Your task to perform on an android device: turn pop-ups off in chrome Image 0: 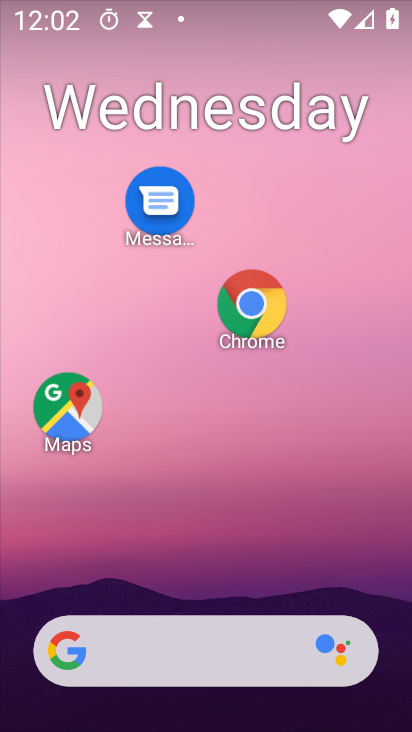
Step 0: drag from (278, 382) to (301, 197)
Your task to perform on an android device: turn pop-ups off in chrome Image 1: 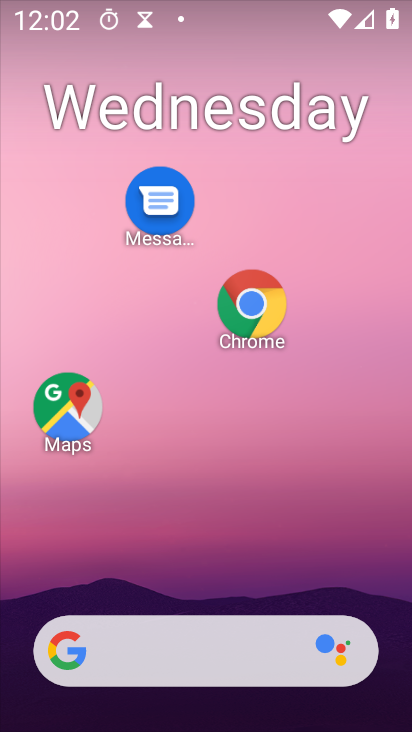
Step 1: click (288, 512)
Your task to perform on an android device: turn pop-ups off in chrome Image 2: 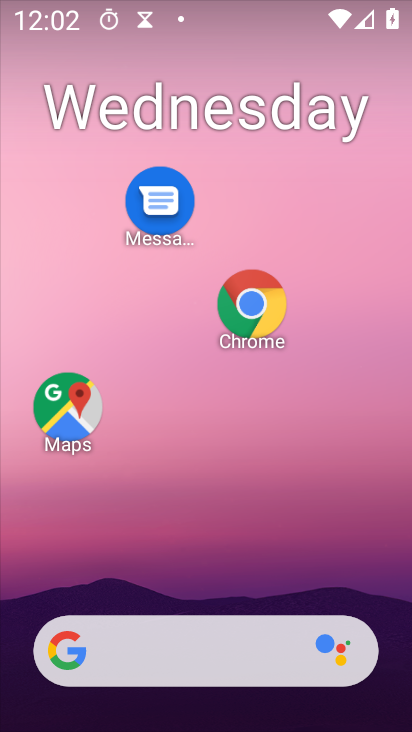
Step 2: drag from (276, 489) to (276, 272)
Your task to perform on an android device: turn pop-ups off in chrome Image 3: 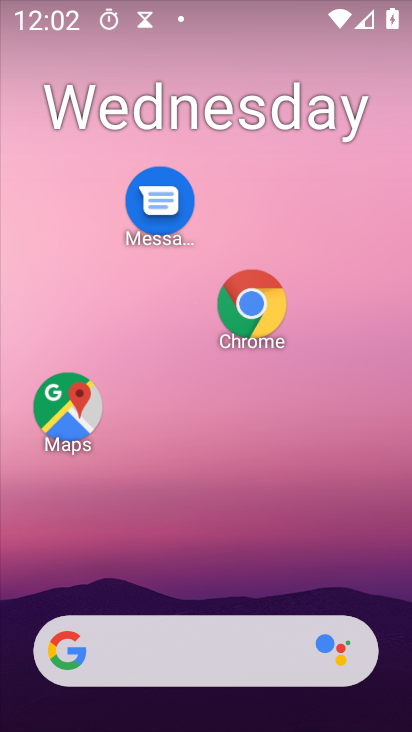
Step 3: drag from (267, 405) to (275, 139)
Your task to perform on an android device: turn pop-ups off in chrome Image 4: 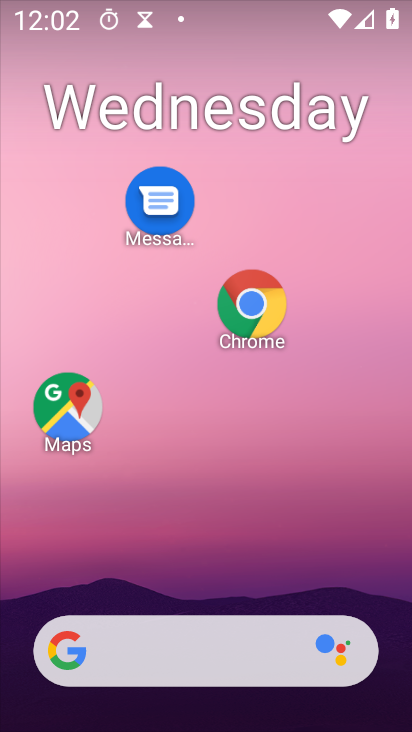
Step 4: drag from (226, 549) to (301, 176)
Your task to perform on an android device: turn pop-ups off in chrome Image 5: 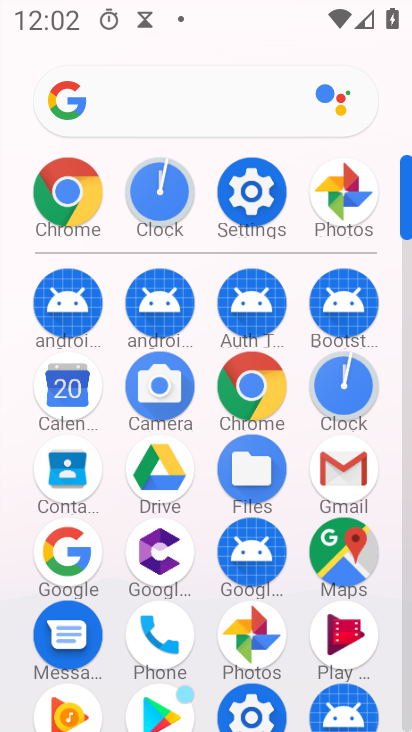
Step 5: click (252, 383)
Your task to perform on an android device: turn pop-ups off in chrome Image 6: 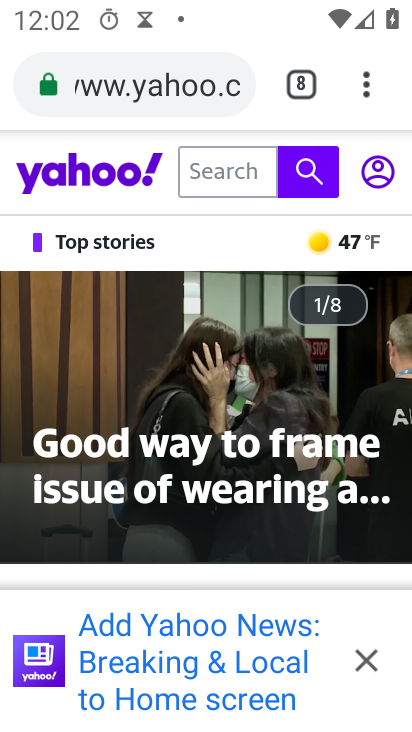
Step 6: click (364, 89)
Your task to perform on an android device: turn pop-ups off in chrome Image 7: 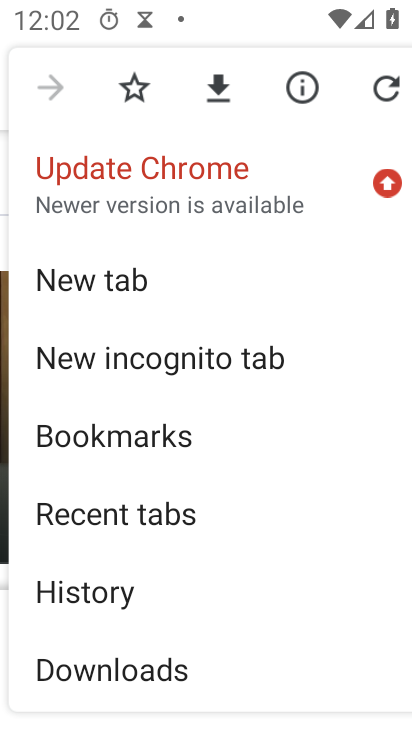
Step 7: drag from (232, 580) to (316, 177)
Your task to perform on an android device: turn pop-ups off in chrome Image 8: 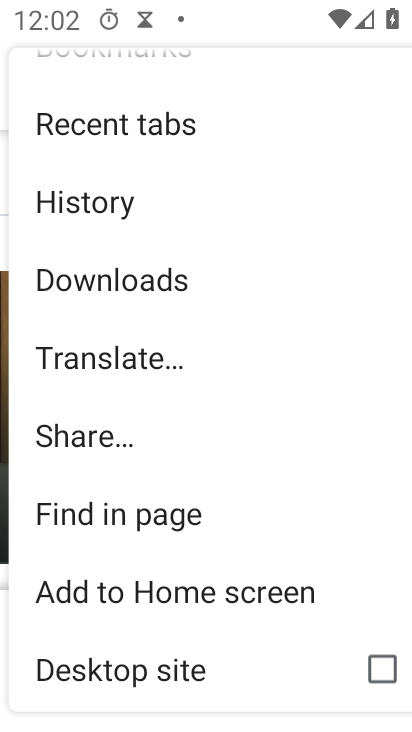
Step 8: drag from (223, 598) to (294, 138)
Your task to perform on an android device: turn pop-ups off in chrome Image 9: 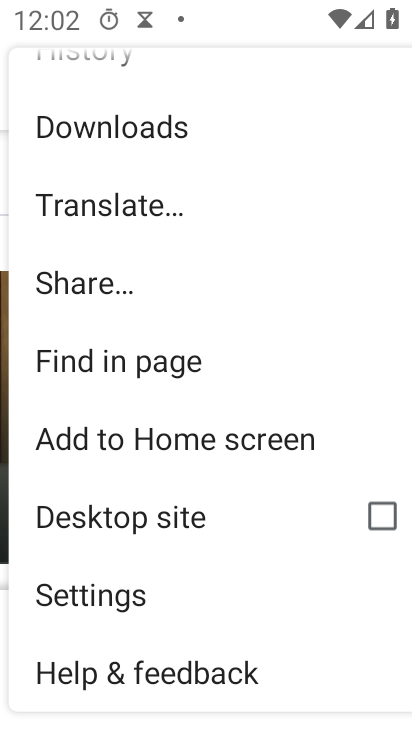
Step 9: click (167, 587)
Your task to perform on an android device: turn pop-ups off in chrome Image 10: 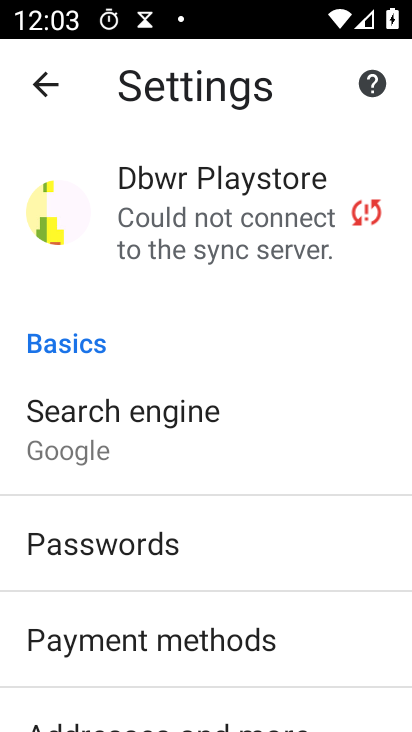
Step 10: drag from (59, 142) to (9, 308)
Your task to perform on an android device: turn pop-ups off in chrome Image 11: 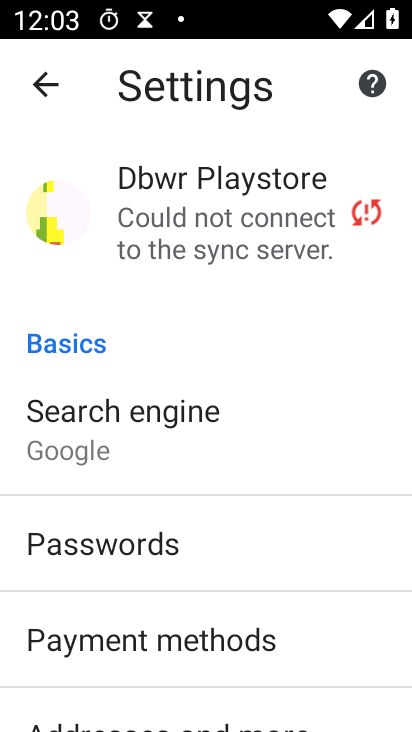
Step 11: drag from (219, 639) to (299, 146)
Your task to perform on an android device: turn pop-ups off in chrome Image 12: 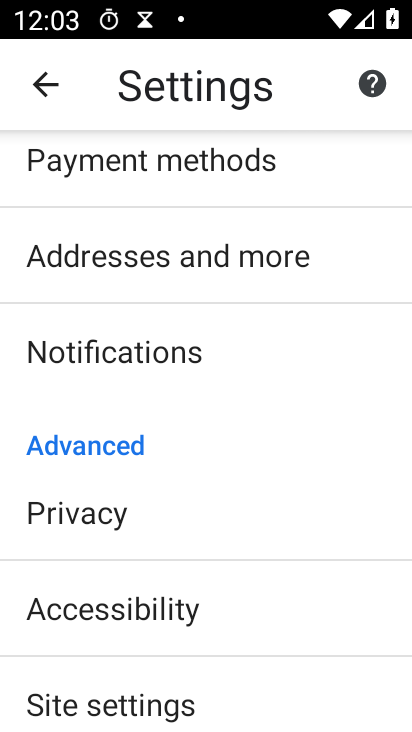
Step 12: drag from (200, 461) to (278, 216)
Your task to perform on an android device: turn pop-ups off in chrome Image 13: 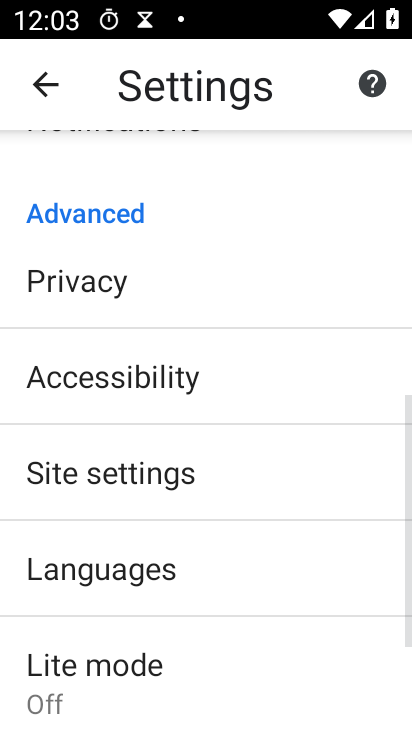
Step 13: click (80, 462)
Your task to perform on an android device: turn pop-ups off in chrome Image 14: 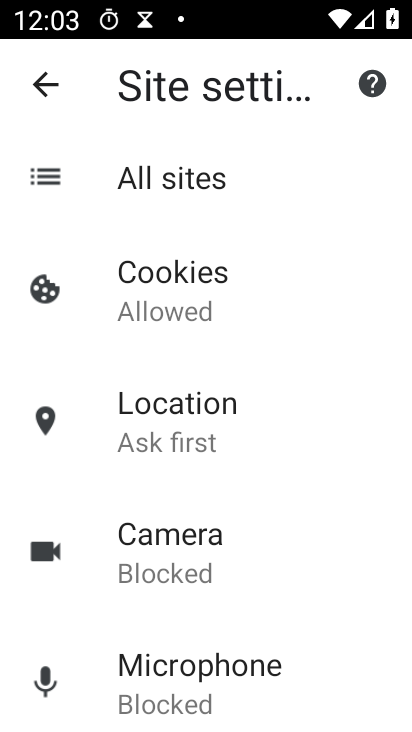
Step 14: drag from (271, 605) to (295, 332)
Your task to perform on an android device: turn pop-ups off in chrome Image 15: 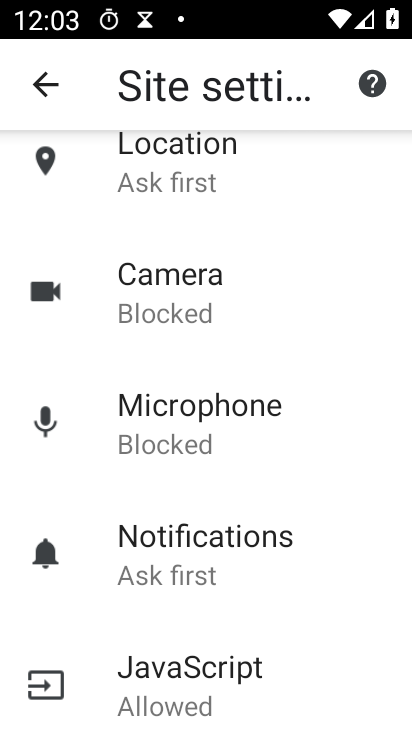
Step 15: drag from (235, 646) to (265, 187)
Your task to perform on an android device: turn pop-ups off in chrome Image 16: 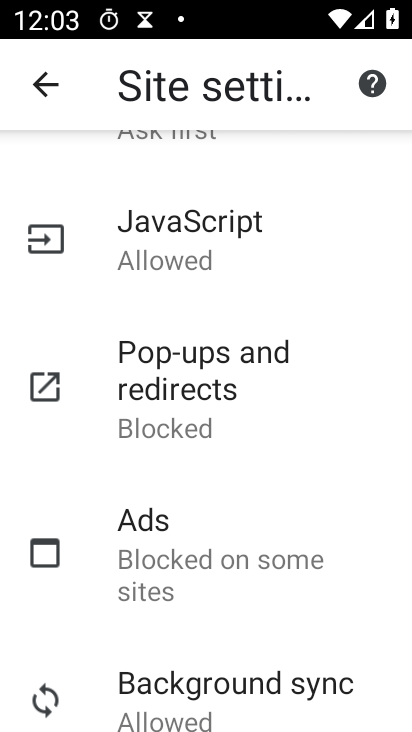
Step 16: click (213, 379)
Your task to perform on an android device: turn pop-ups off in chrome Image 17: 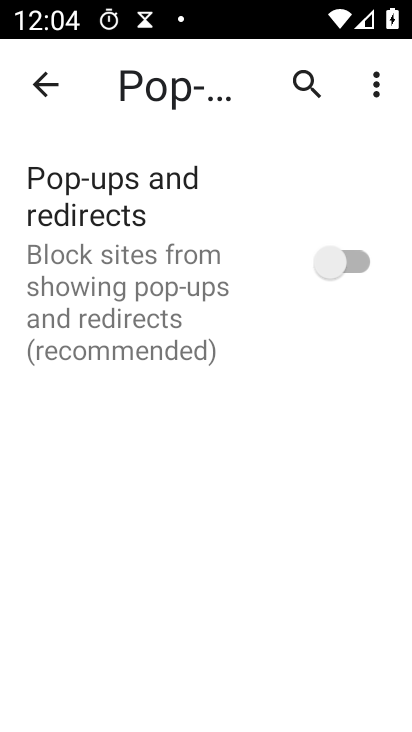
Step 17: task complete